Your task to perform on an android device: Play the last video I watched on Youtube Image 0: 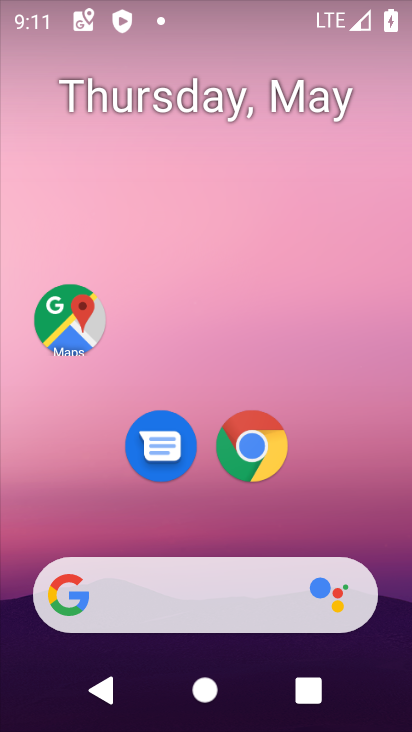
Step 0: drag from (391, 611) to (387, 18)
Your task to perform on an android device: Play the last video I watched on Youtube Image 1: 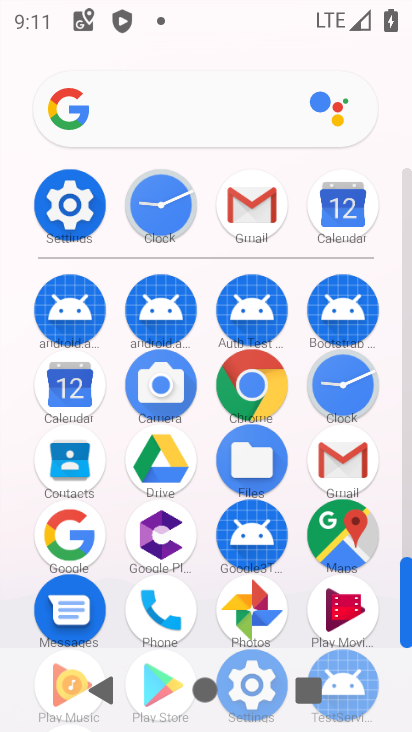
Step 1: click (405, 533)
Your task to perform on an android device: Play the last video I watched on Youtube Image 2: 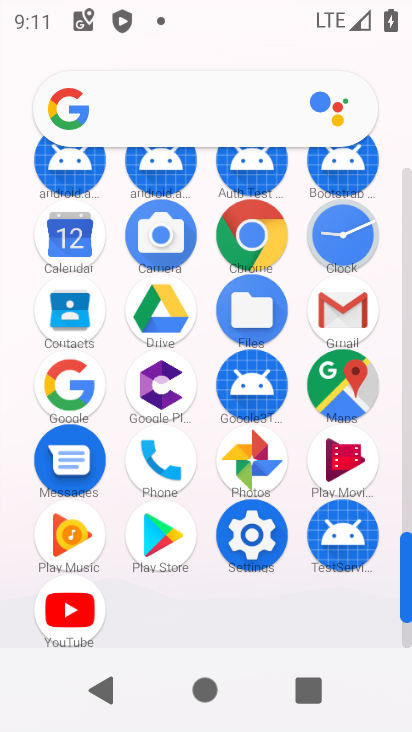
Step 2: click (64, 605)
Your task to perform on an android device: Play the last video I watched on Youtube Image 3: 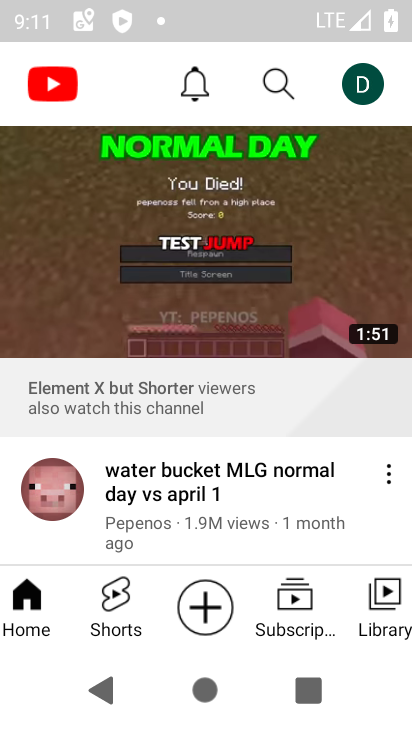
Step 3: click (392, 598)
Your task to perform on an android device: Play the last video I watched on Youtube Image 4: 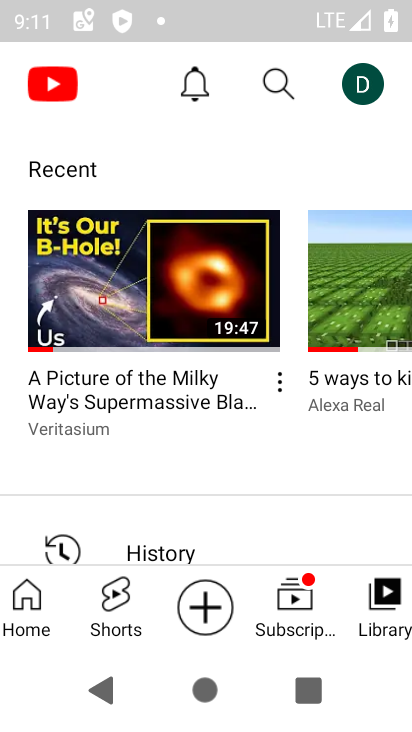
Step 4: click (165, 287)
Your task to perform on an android device: Play the last video I watched on Youtube Image 5: 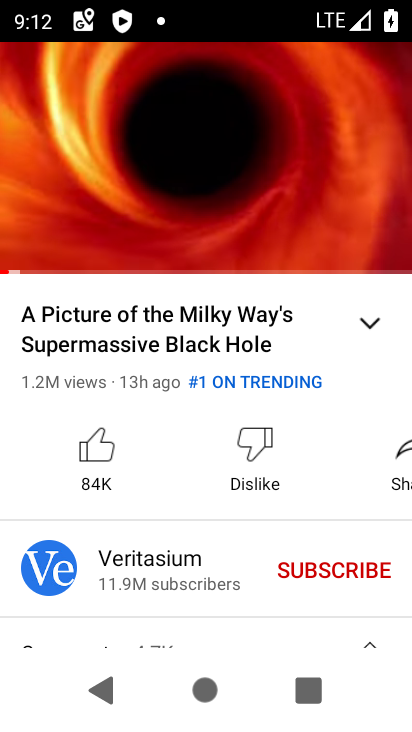
Step 5: click (225, 136)
Your task to perform on an android device: Play the last video I watched on Youtube Image 6: 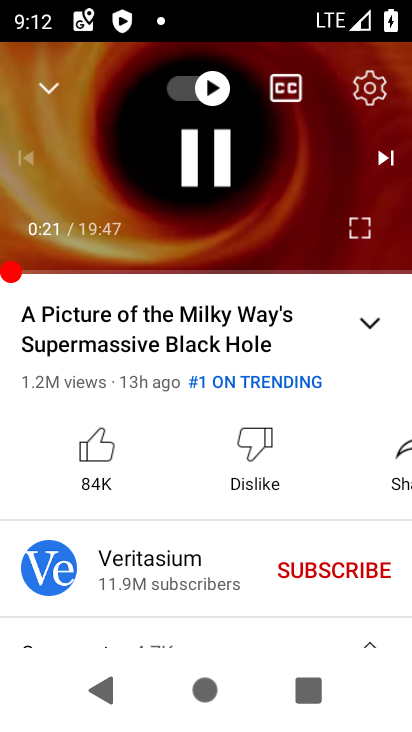
Step 6: click (225, 136)
Your task to perform on an android device: Play the last video I watched on Youtube Image 7: 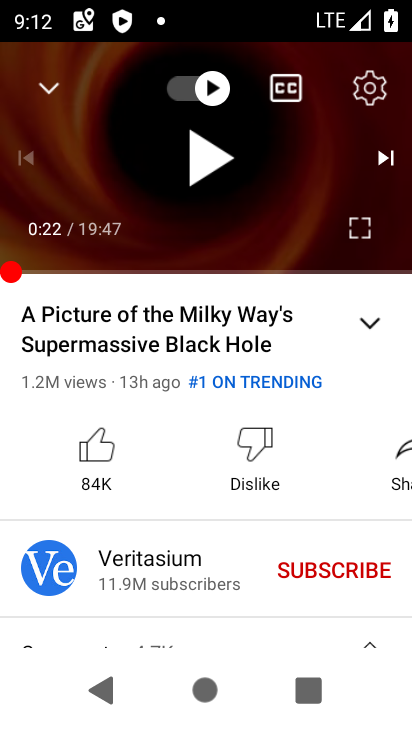
Step 7: task complete